Your task to perform on an android device: What's the news in Ecuador? Image 0: 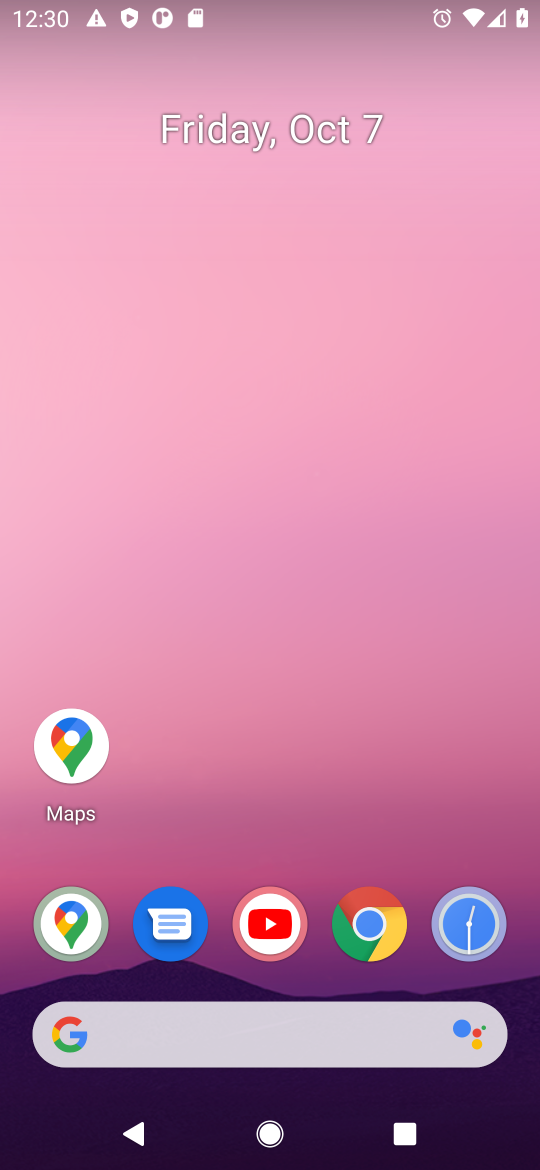
Step 0: click (378, 920)
Your task to perform on an android device: What's the news in Ecuador? Image 1: 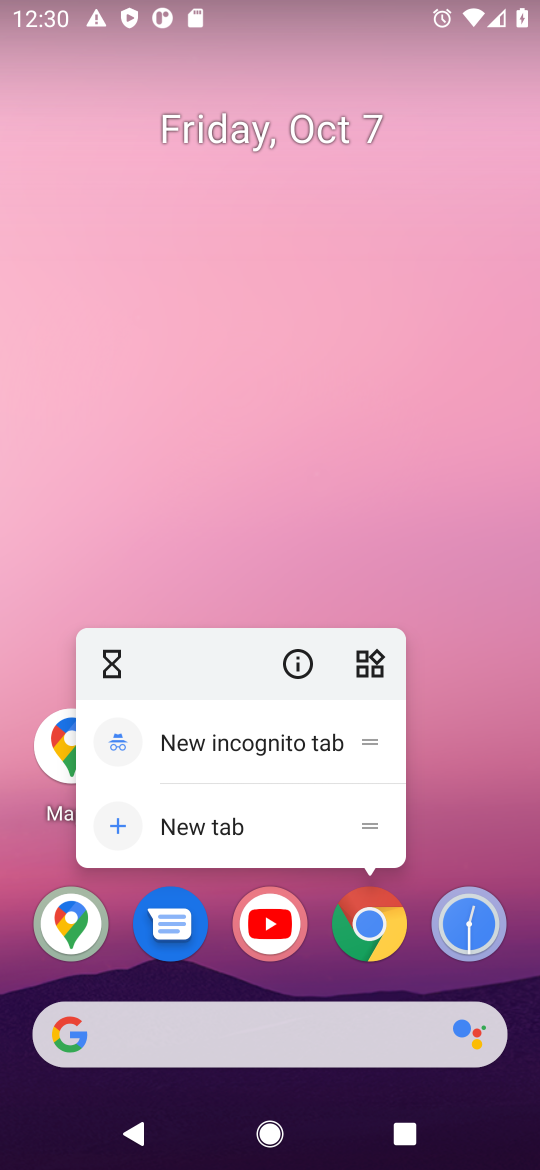
Step 1: click (363, 924)
Your task to perform on an android device: What's the news in Ecuador? Image 2: 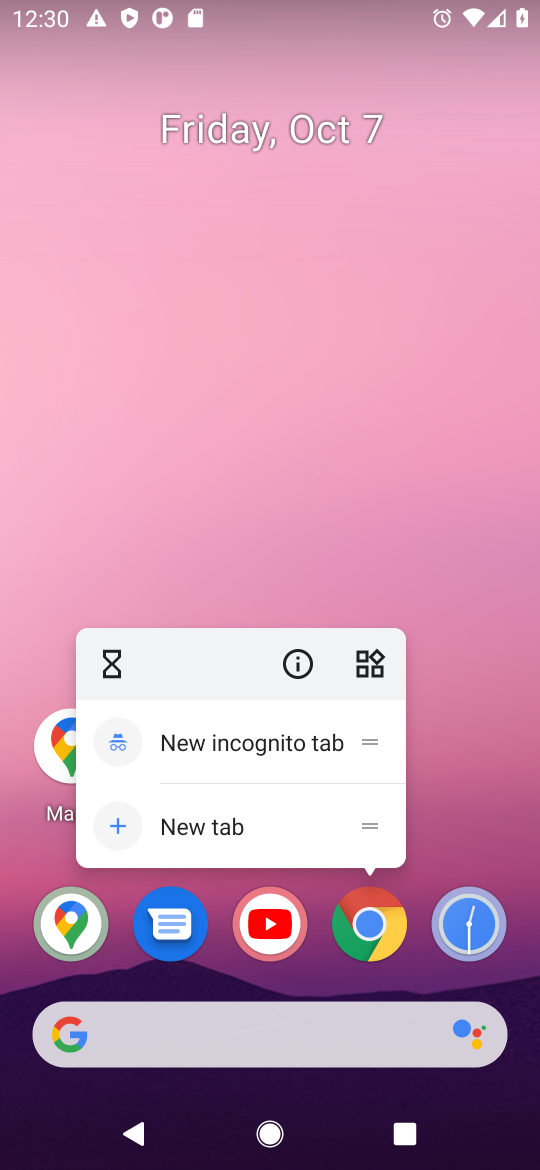
Step 2: click (363, 926)
Your task to perform on an android device: What's the news in Ecuador? Image 3: 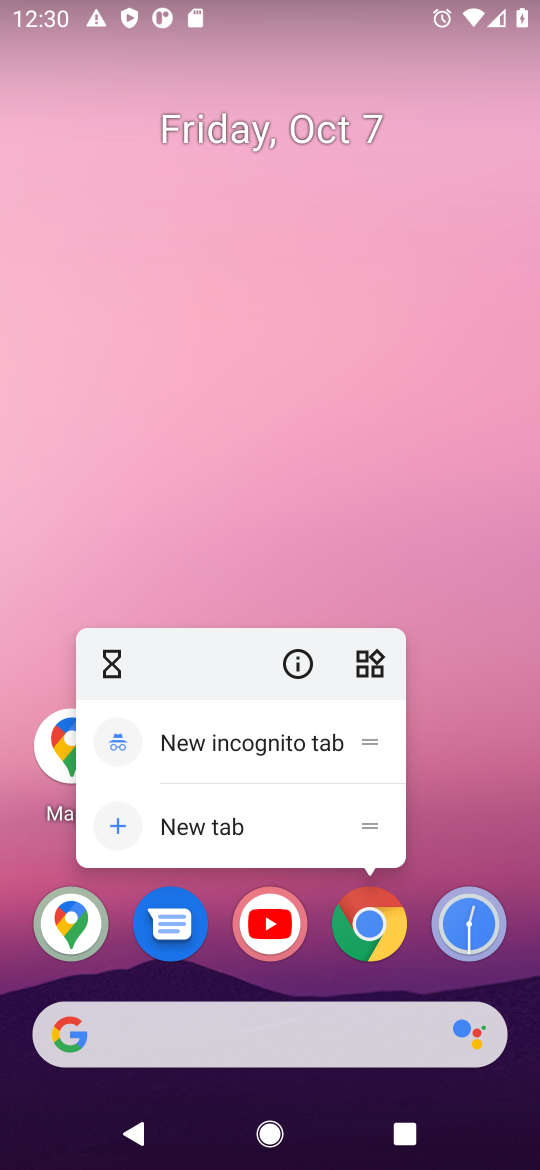
Step 3: click (363, 927)
Your task to perform on an android device: What's the news in Ecuador? Image 4: 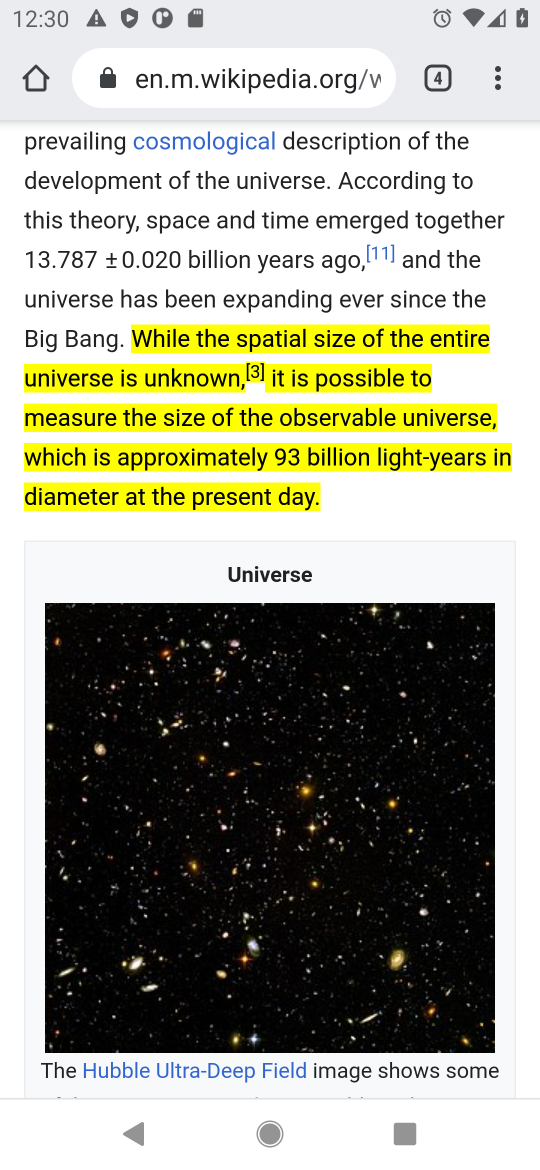
Step 4: click (296, 70)
Your task to perform on an android device: What's the news in Ecuador? Image 5: 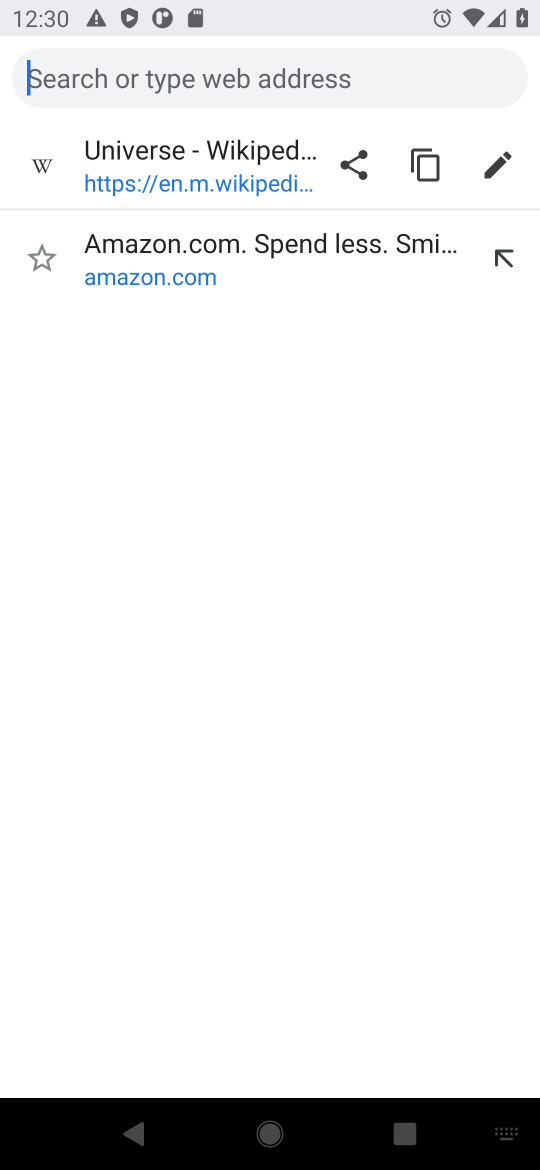
Step 5: type "news in Ecuador"
Your task to perform on an android device: What's the news in Ecuador? Image 6: 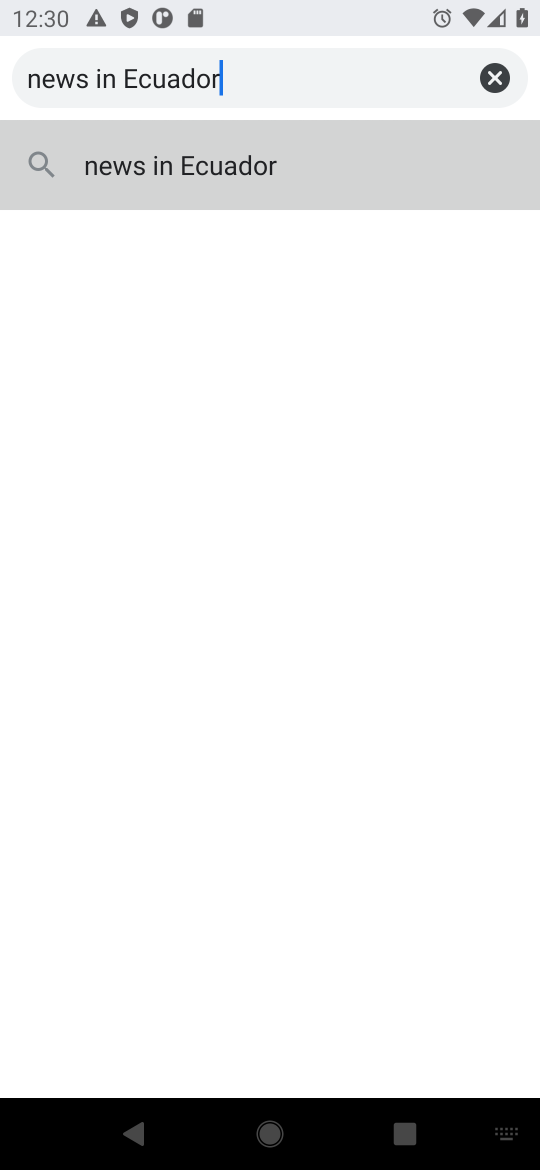
Step 6: click (214, 159)
Your task to perform on an android device: What's the news in Ecuador? Image 7: 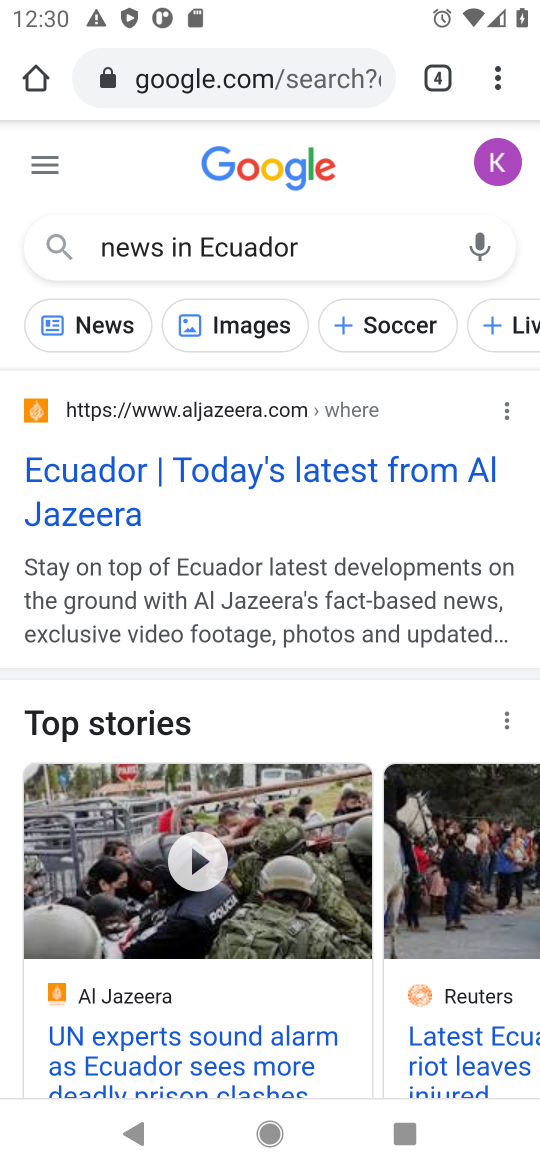
Step 7: click (110, 318)
Your task to perform on an android device: What's the news in Ecuador? Image 8: 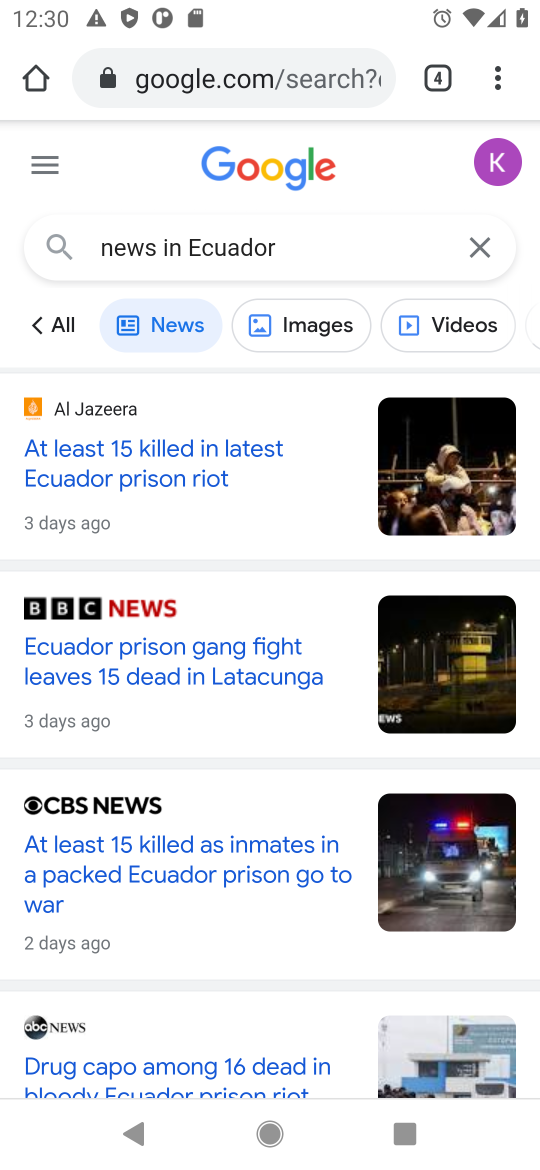
Step 8: task complete